Your task to perform on an android device: turn off javascript in the chrome app Image 0: 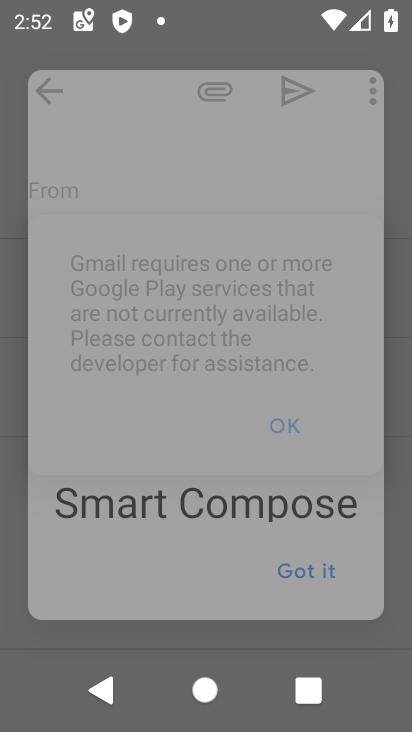
Step 0: drag from (203, 563) to (232, 187)
Your task to perform on an android device: turn off javascript in the chrome app Image 1: 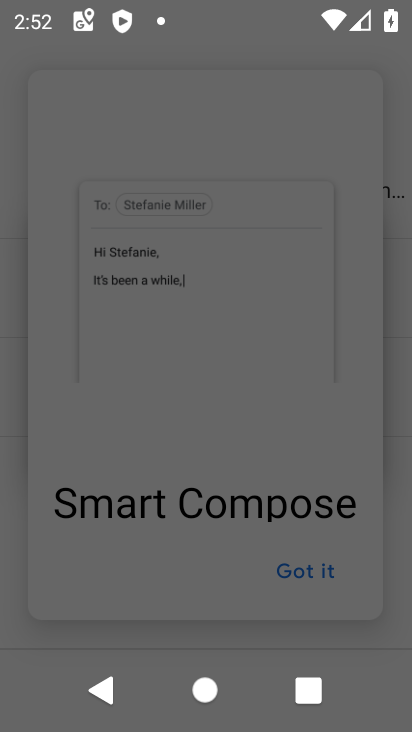
Step 1: press home button
Your task to perform on an android device: turn off javascript in the chrome app Image 2: 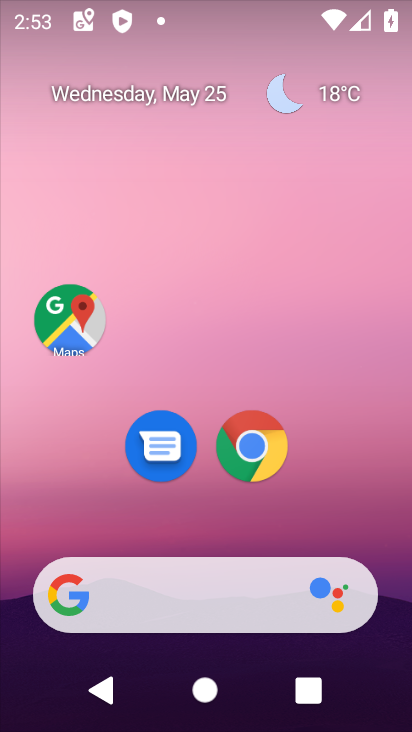
Step 2: click (241, 465)
Your task to perform on an android device: turn off javascript in the chrome app Image 3: 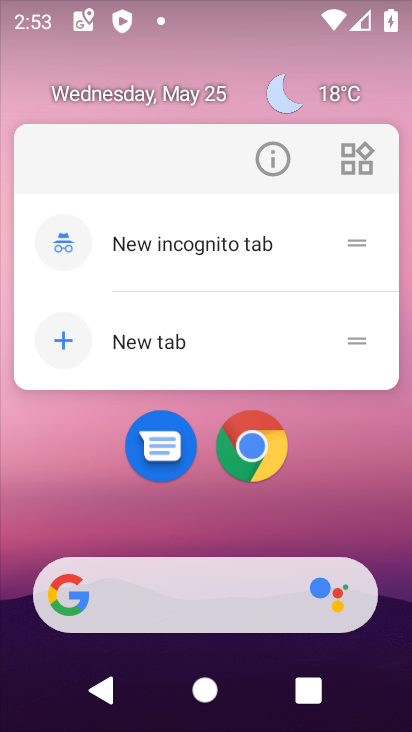
Step 3: click (272, 442)
Your task to perform on an android device: turn off javascript in the chrome app Image 4: 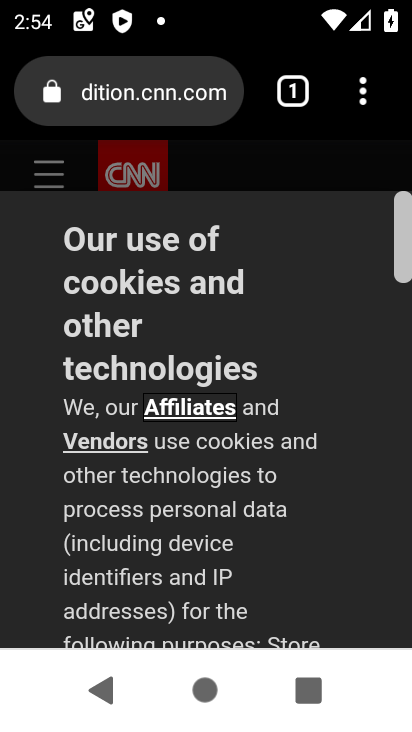
Step 4: drag from (361, 100) to (80, 505)
Your task to perform on an android device: turn off javascript in the chrome app Image 5: 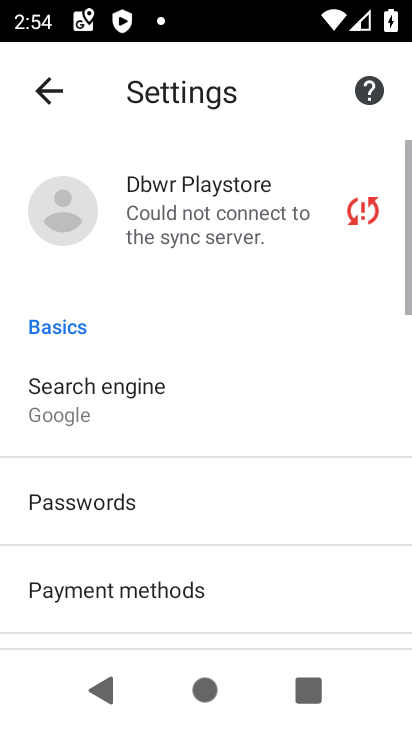
Step 5: drag from (151, 565) to (112, 103)
Your task to perform on an android device: turn off javascript in the chrome app Image 6: 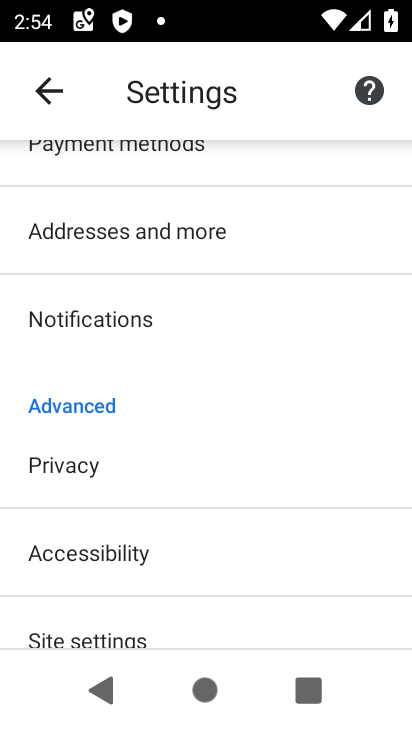
Step 6: click (172, 628)
Your task to perform on an android device: turn off javascript in the chrome app Image 7: 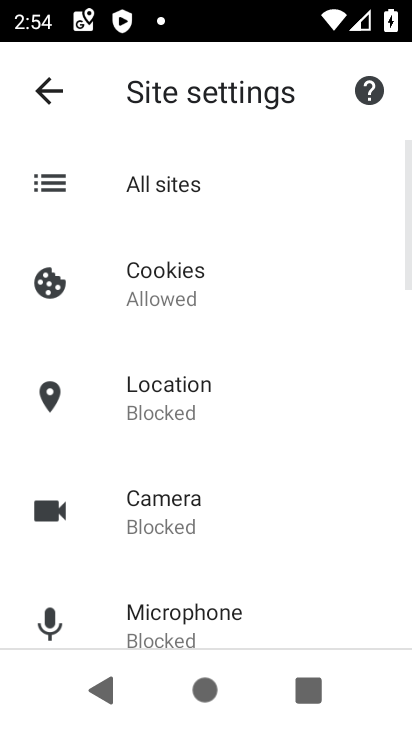
Step 7: drag from (184, 573) to (177, 143)
Your task to perform on an android device: turn off javascript in the chrome app Image 8: 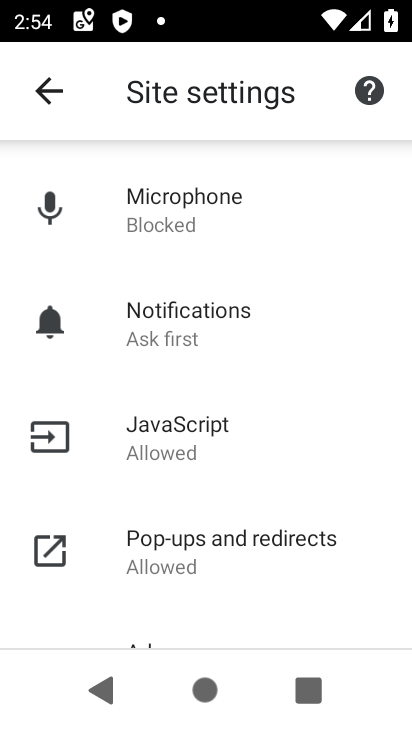
Step 8: click (157, 431)
Your task to perform on an android device: turn off javascript in the chrome app Image 9: 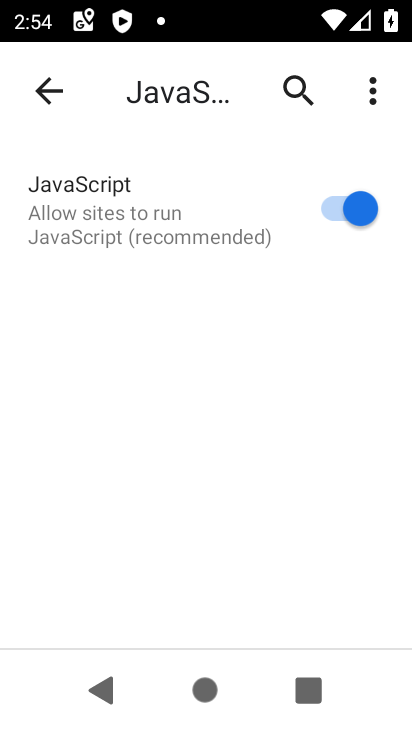
Step 9: click (348, 208)
Your task to perform on an android device: turn off javascript in the chrome app Image 10: 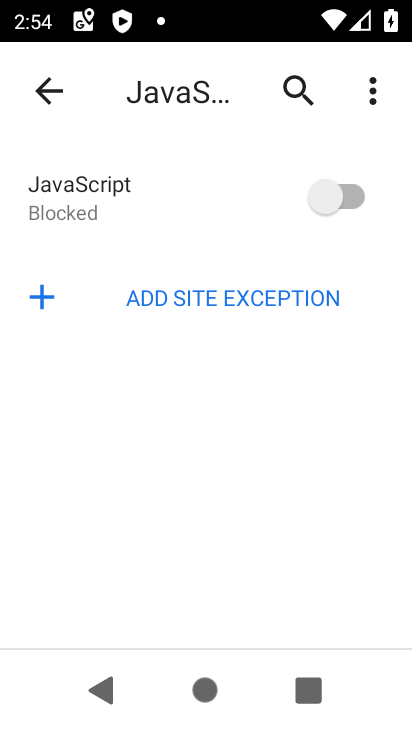
Step 10: task complete